Your task to perform on an android device: set an alarm Image 0: 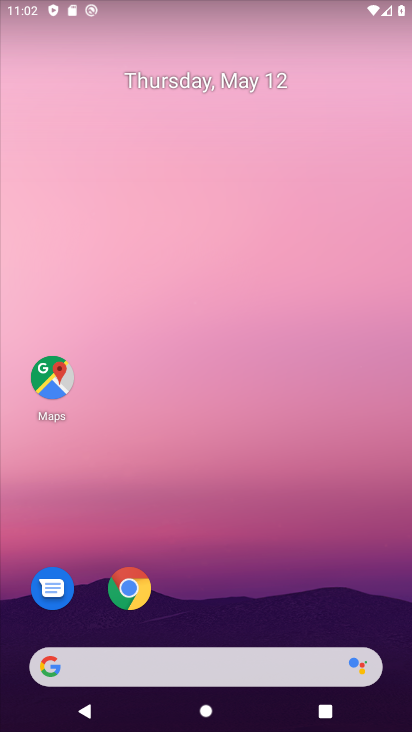
Step 0: drag from (196, 601) to (317, 298)
Your task to perform on an android device: set an alarm Image 1: 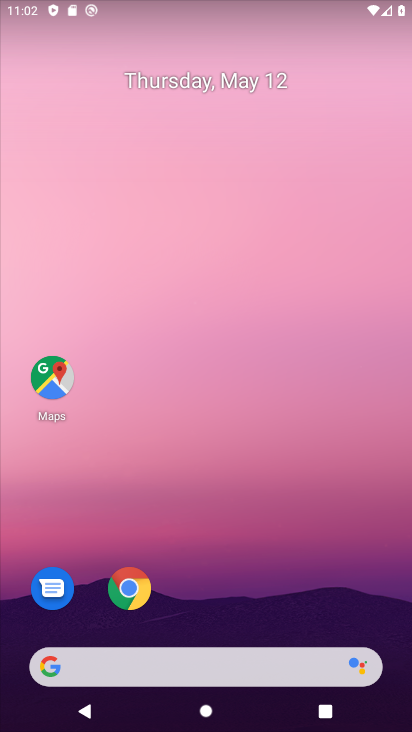
Step 1: drag from (199, 619) to (161, 0)
Your task to perform on an android device: set an alarm Image 2: 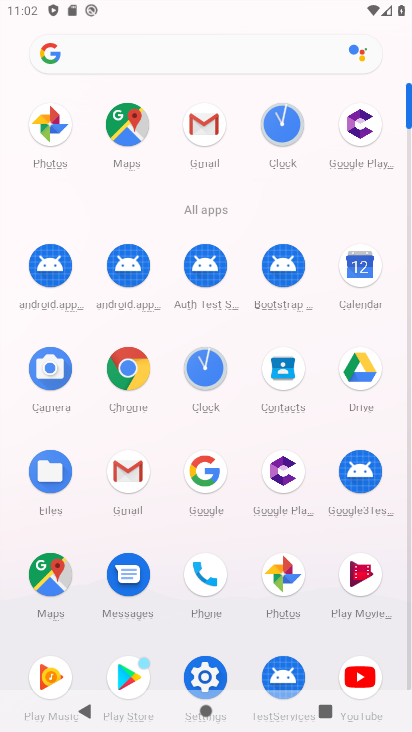
Step 2: click (210, 365)
Your task to perform on an android device: set an alarm Image 3: 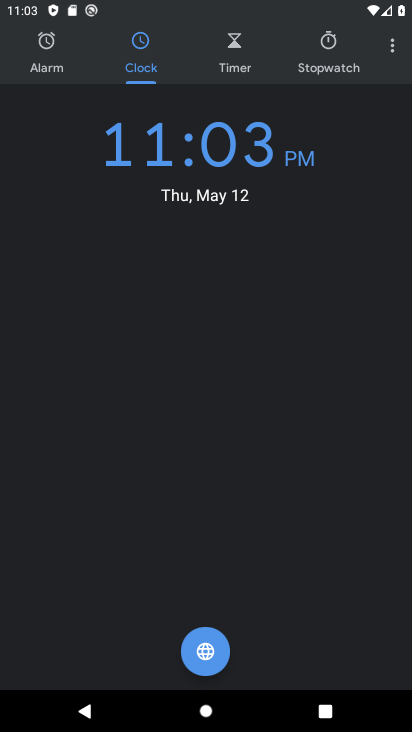
Step 3: click (58, 76)
Your task to perform on an android device: set an alarm Image 4: 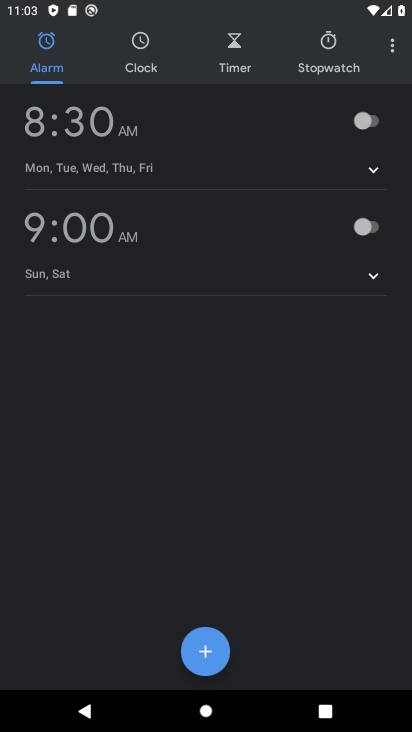
Step 4: click (365, 96)
Your task to perform on an android device: set an alarm Image 5: 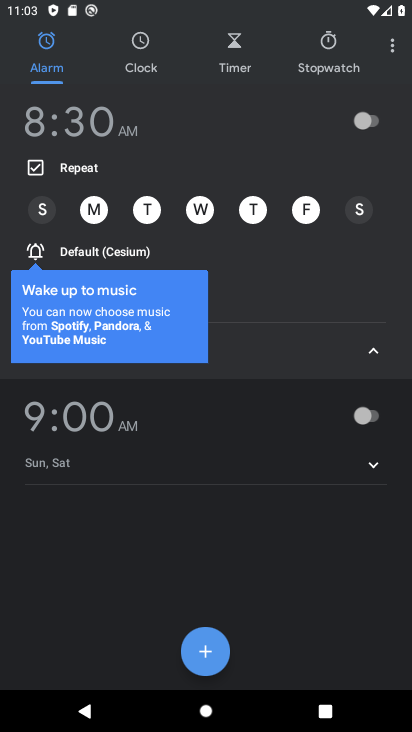
Step 5: task complete